Your task to perform on an android device: toggle location history Image 0: 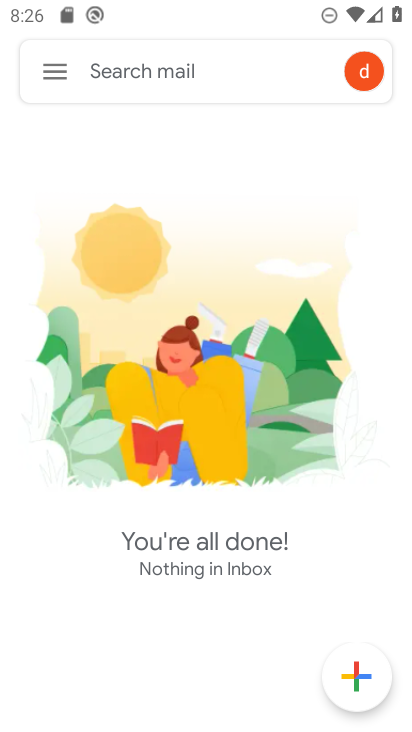
Step 0: press home button
Your task to perform on an android device: toggle location history Image 1: 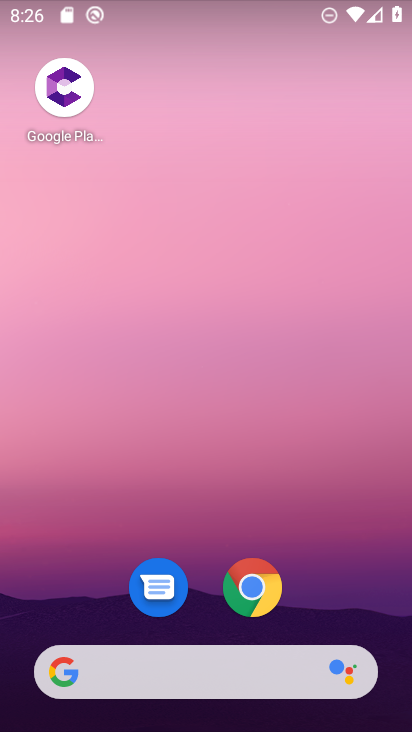
Step 1: drag from (317, 8) to (257, 439)
Your task to perform on an android device: toggle location history Image 2: 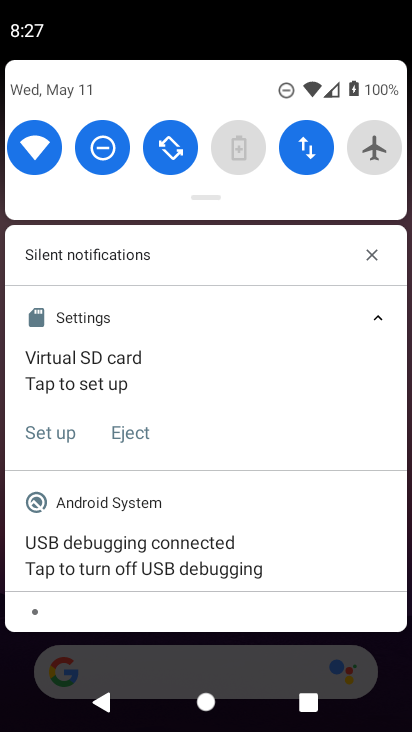
Step 2: drag from (229, 197) to (222, 531)
Your task to perform on an android device: toggle location history Image 3: 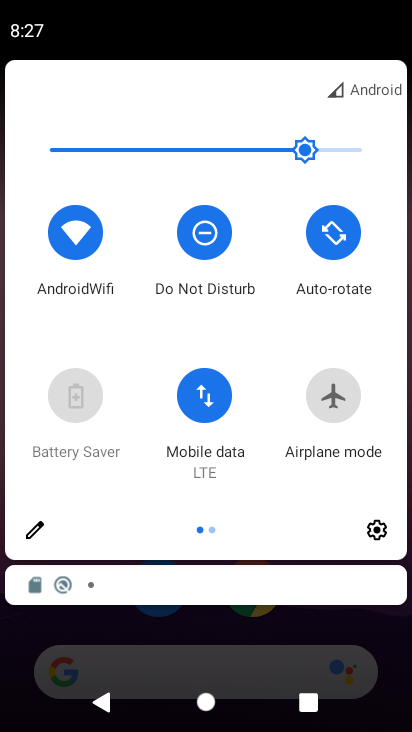
Step 3: click (374, 529)
Your task to perform on an android device: toggle location history Image 4: 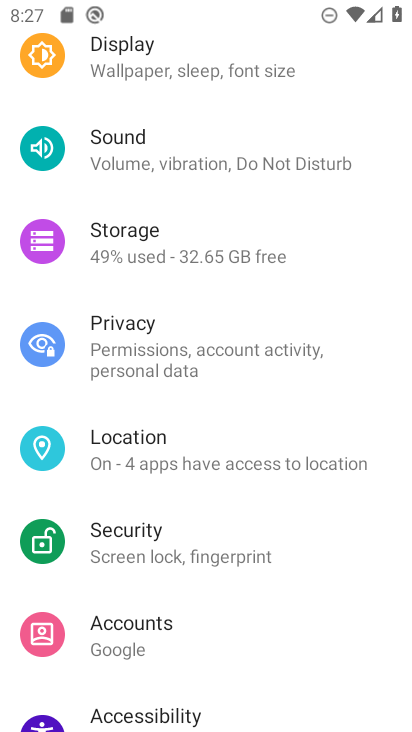
Step 4: click (176, 468)
Your task to perform on an android device: toggle location history Image 5: 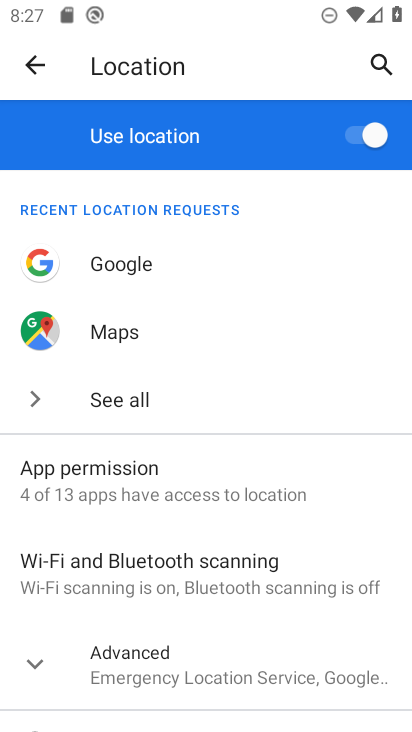
Step 5: click (171, 648)
Your task to perform on an android device: toggle location history Image 6: 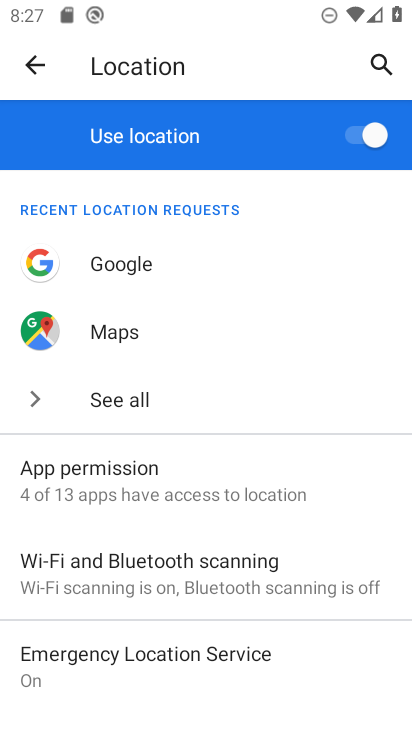
Step 6: drag from (272, 603) to (245, 337)
Your task to perform on an android device: toggle location history Image 7: 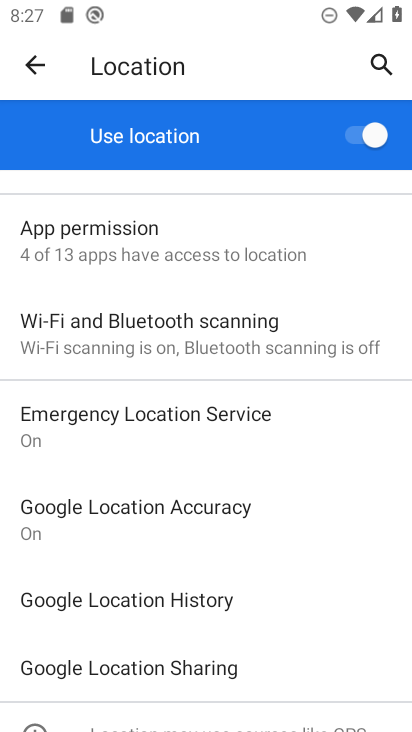
Step 7: click (232, 607)
Your task to perform on an android device: toggle location history Image 8: 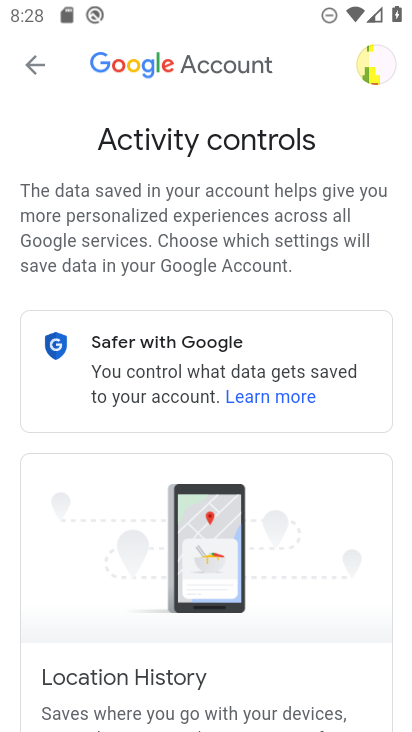
Step 8: drag from (348, 474) to (295, 319)
Your task to perform on an android device: toggle location history Image 9: 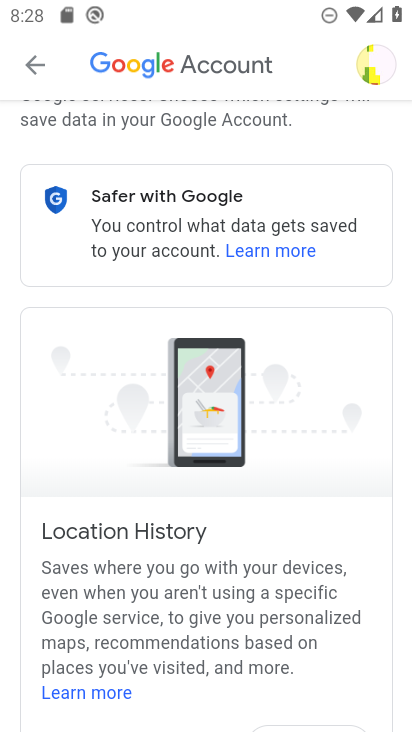
Step 9: drag from (308, 571) to (271, 347)
Your task to perform on an android device: toggle location history Image 10: 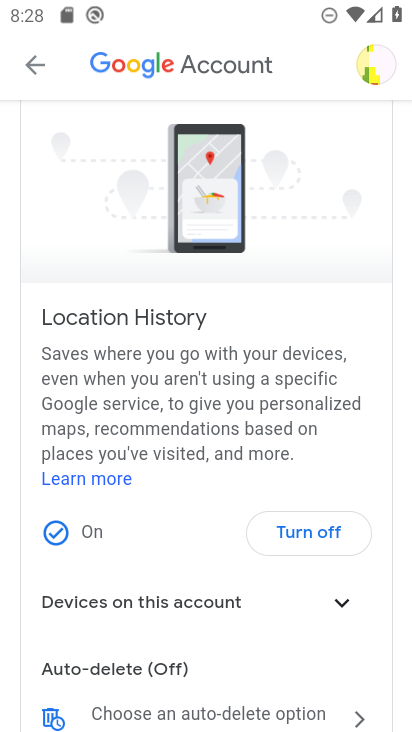
Step 10: drag from (298, 600) to (265, 427)
Your task to perform on an android device: toggle location history Image 11: 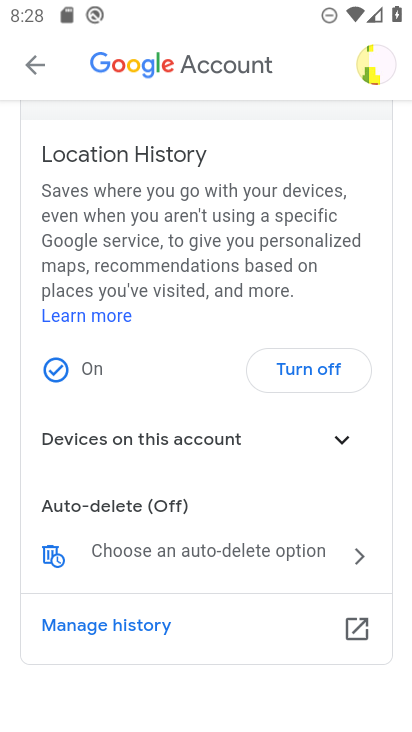
Step 11: drag from (241, 263) to (249, 364)
Your task to perform on an android device: toggle location history Image 12: 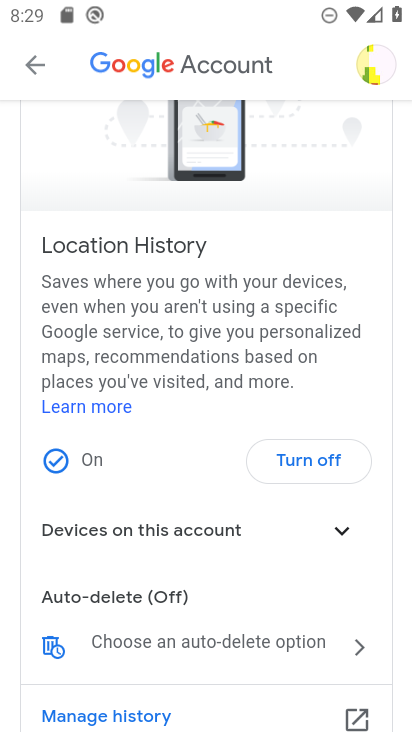
Step 12: click (331, 456)
Your task to perform on an android device: toggle location history Image 13: 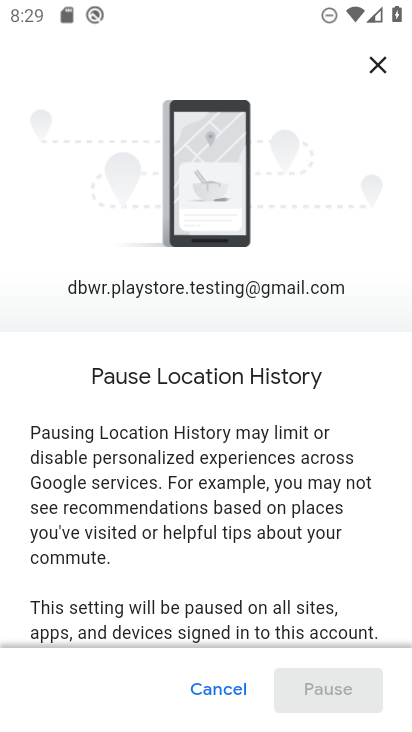
Step 13: drag from (331, 456) to (286, 181)
Your task to perform on an android device: toggle location history Image 14: 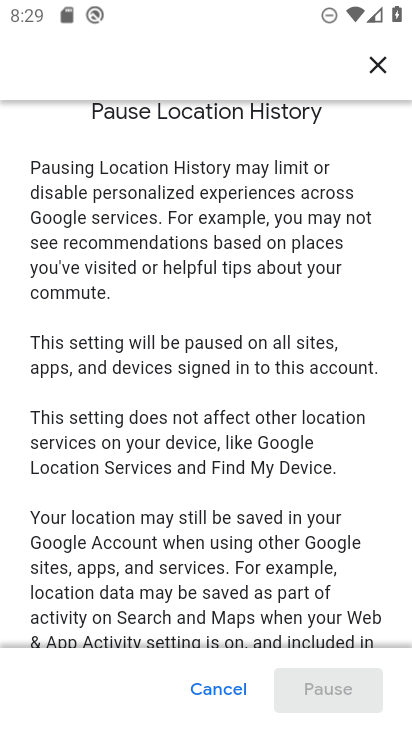
Step 14: drag from (347, 513) to (278, 179)
Your task to perform on an android device: toggle location history Image 15: 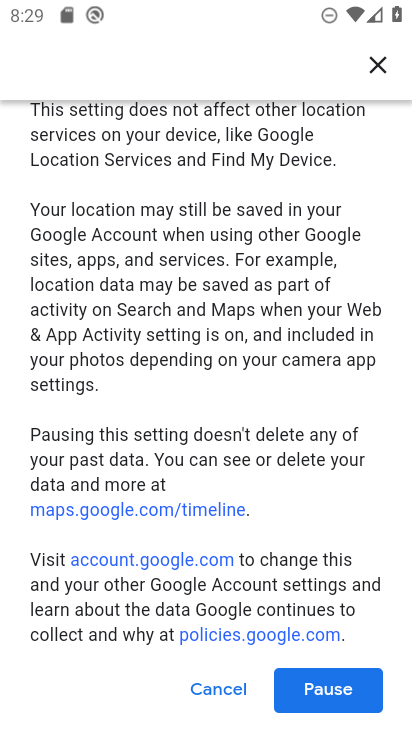
Step 15: click (324, 679)
Your task to perform on an android device: toggle location history Image 16: 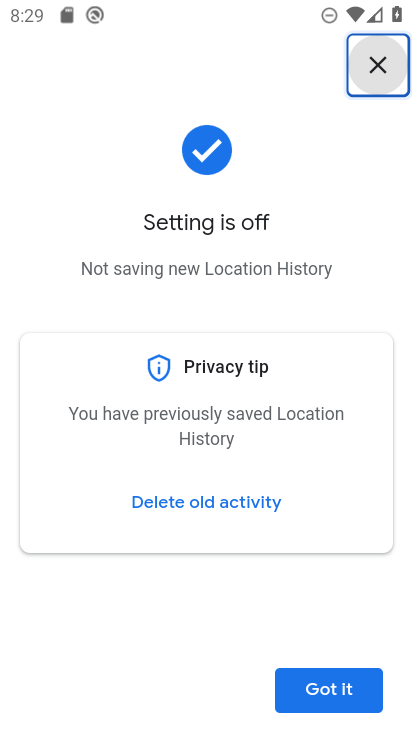
Step 16: click (344, 679)
Your task to perform on an android device: toggle location history Image 17: 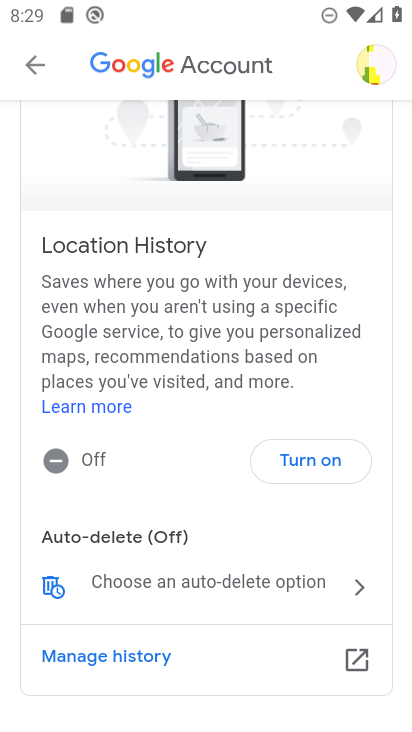
Step 17: task complete